Your task to perform on an android device: When is my next appointment? Image 0: 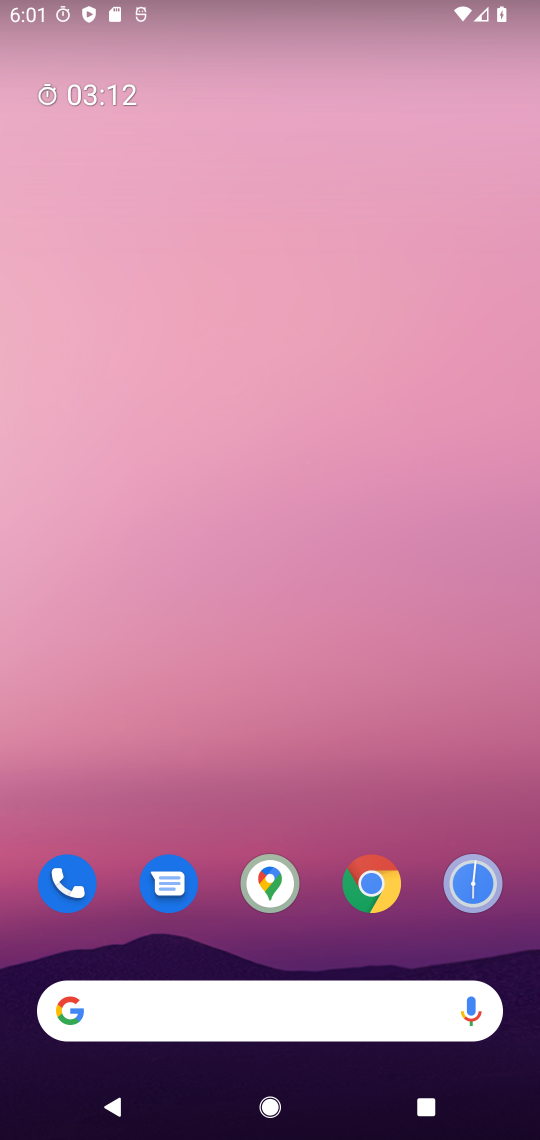
Step 0: drag from (274, 795) to (274, 208)
Your task to perform on an android device: When is my next appointment? Image 1: 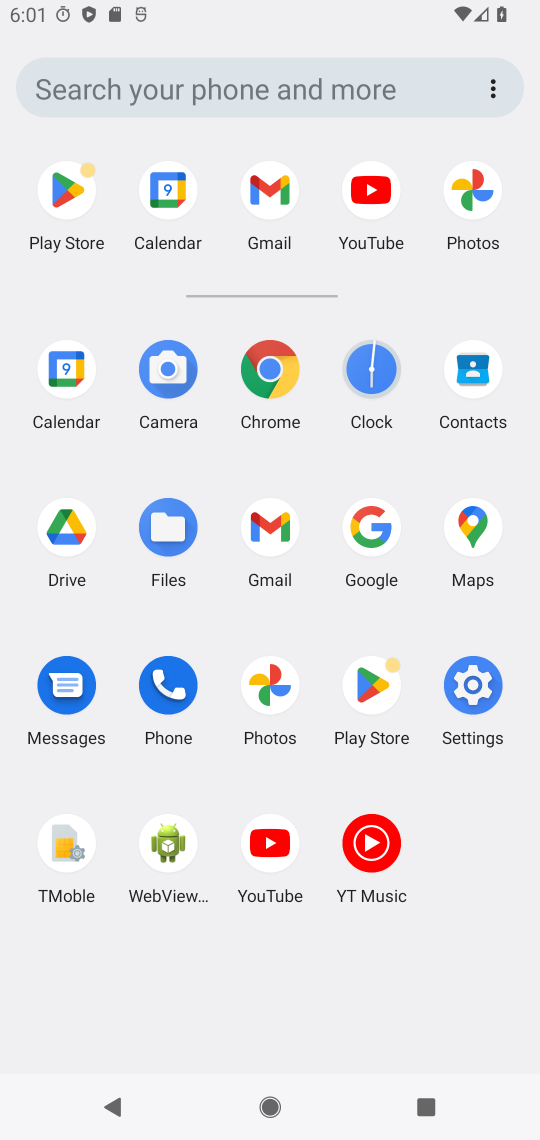
Step 1: click (56, 407)
Your task to perform on an android device: When is my next appointment? Image 2: 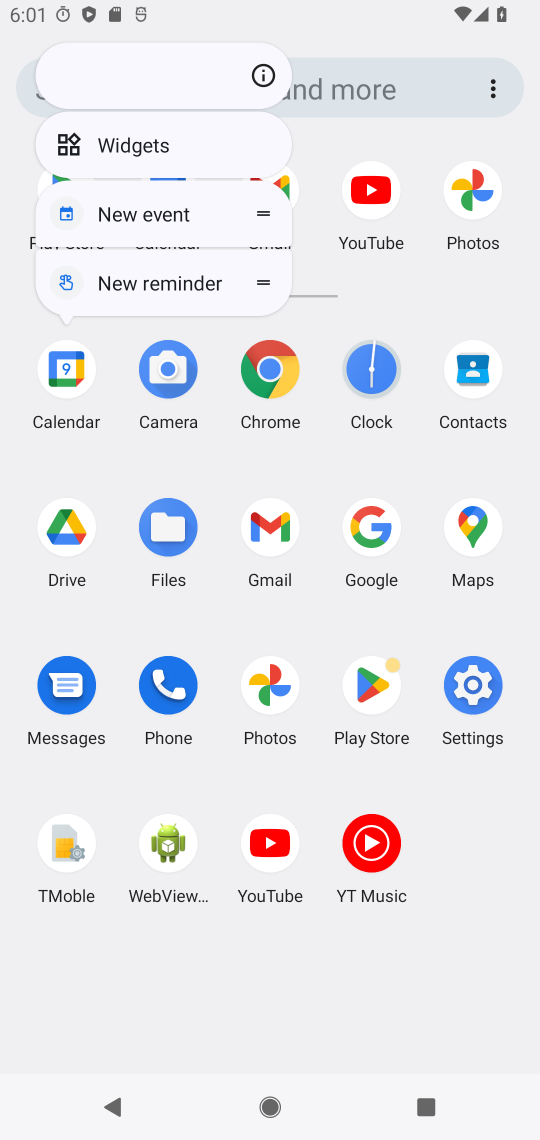
Step 2: click (56, 407)
Your task to perform on an android device: When is my next appointment? Image 3: 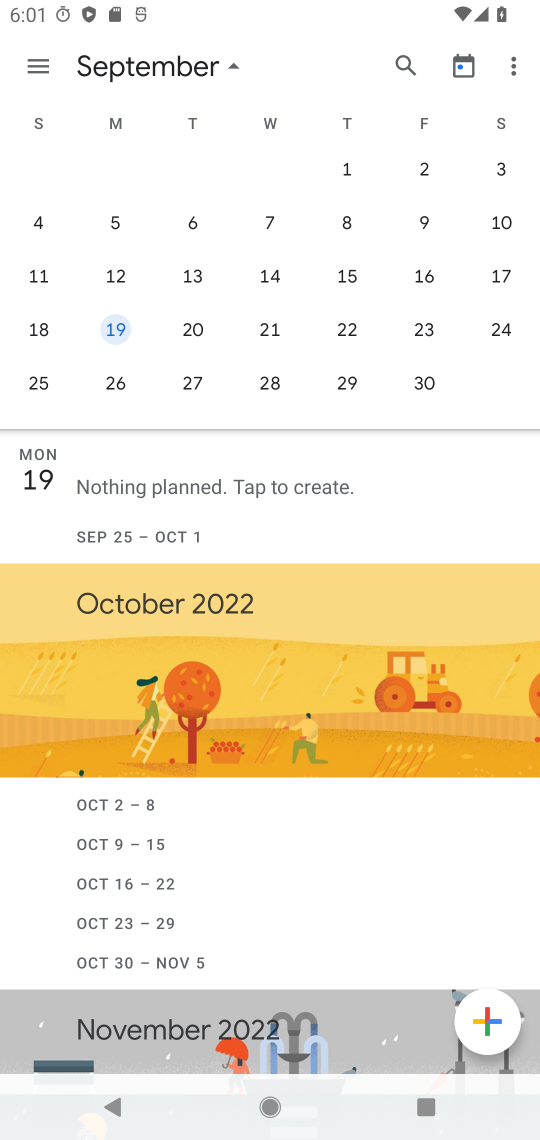
Step 3: drag from (435, 248) to (494, 248)
Your task to perform on an android device: When is my next appointment? Image 4: 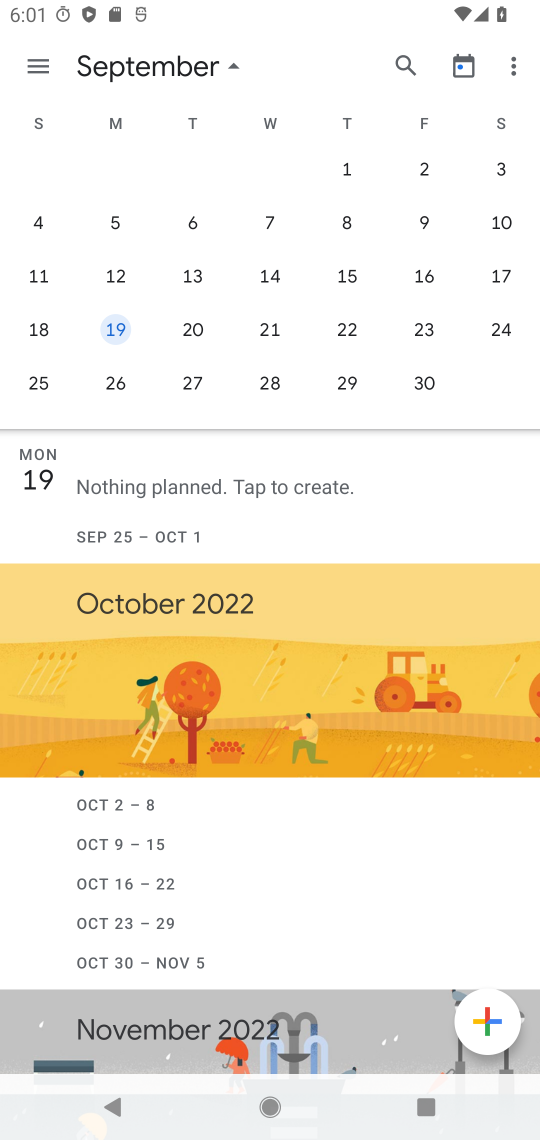
Step 4: drag from (107, 265) to (461, 230)
Your task to perform on an android device: When is my next appointment? Image 5: 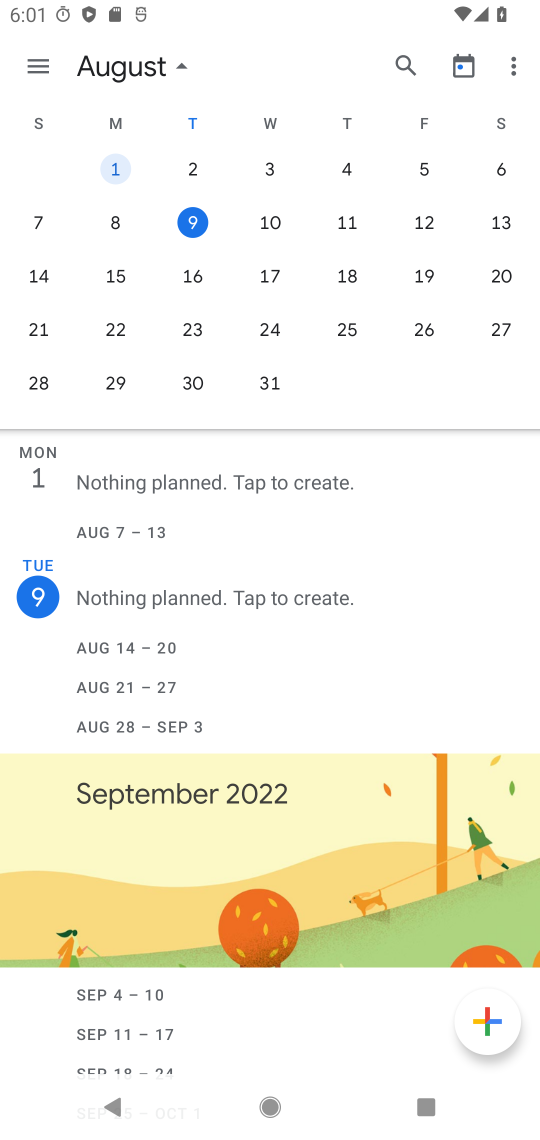
Step 5: click (46, 294)
Your task to perform on an android device: When is my next appointment? Image 6: 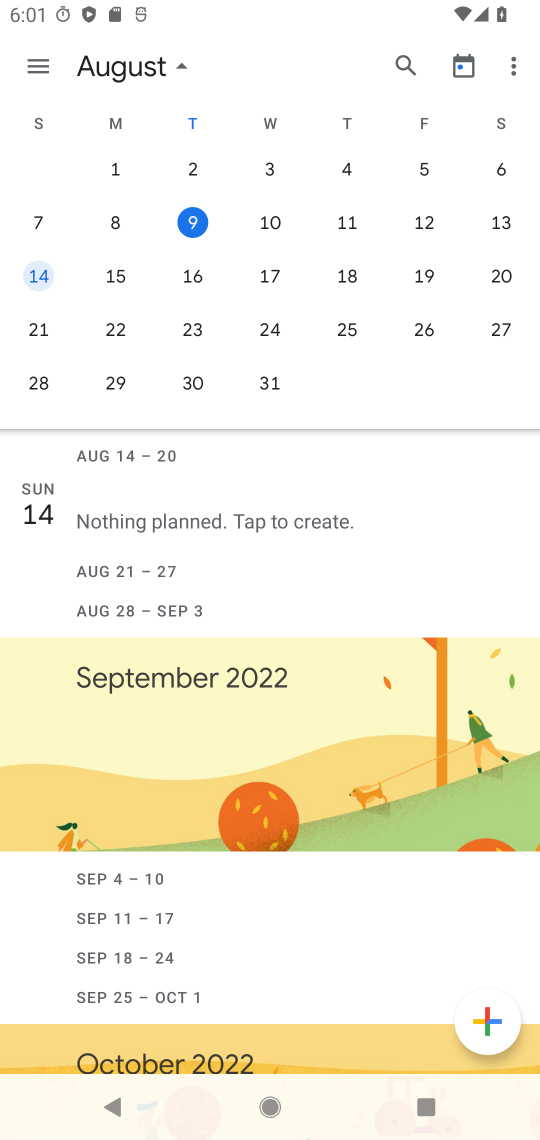
Step 6: click (108, 287)
Your task to perform on an android device: When is my next appointment? Image 7: 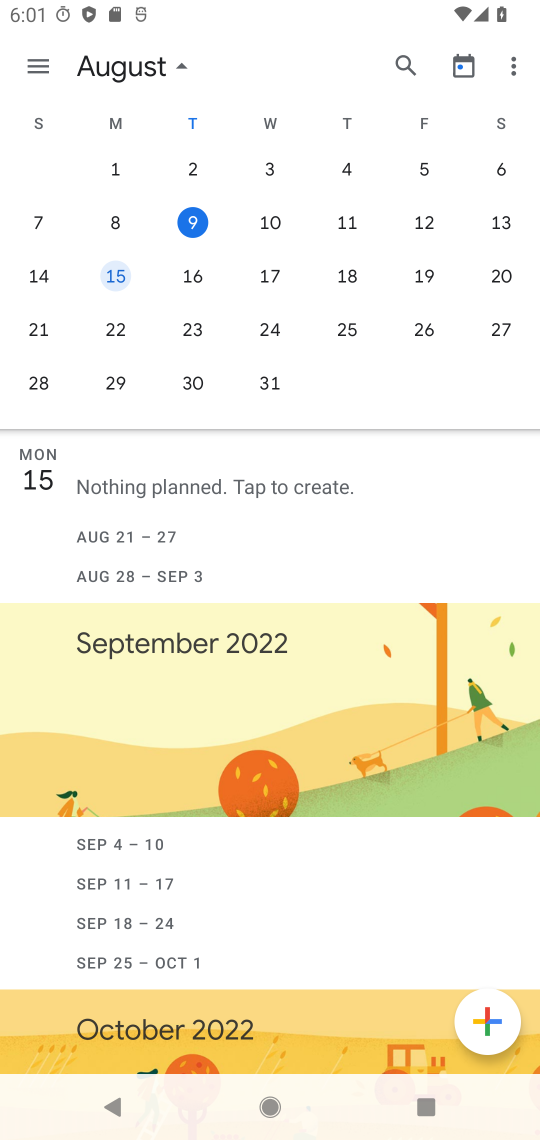
Step 7: click (373, 228)
Your task to perform on an android device: When is my next appointment? Image 8: 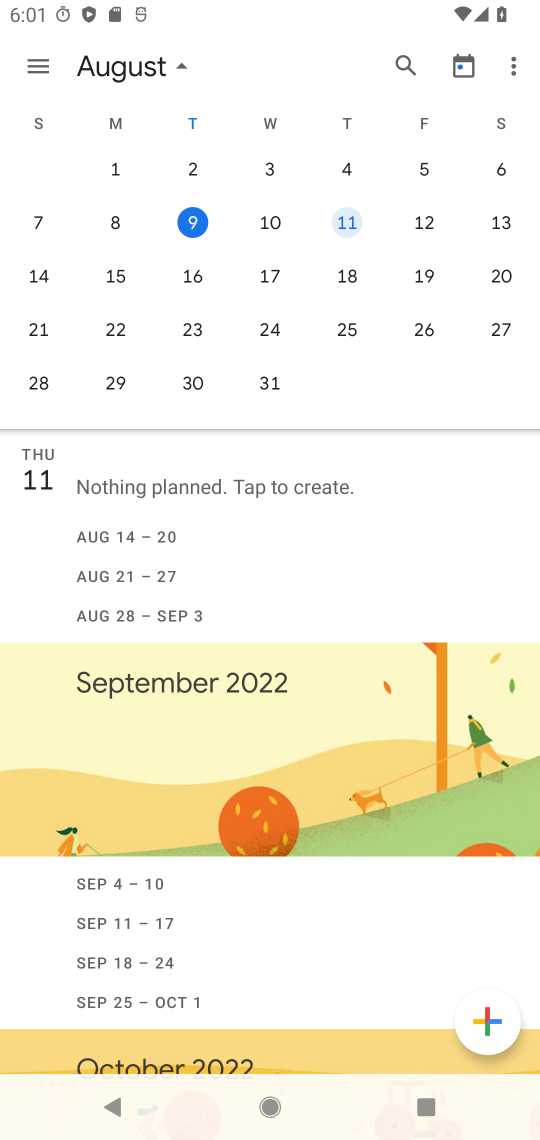
Step 8: click (434, 223)
Your task to perform on an android device: When is my next appointment? Image 9: 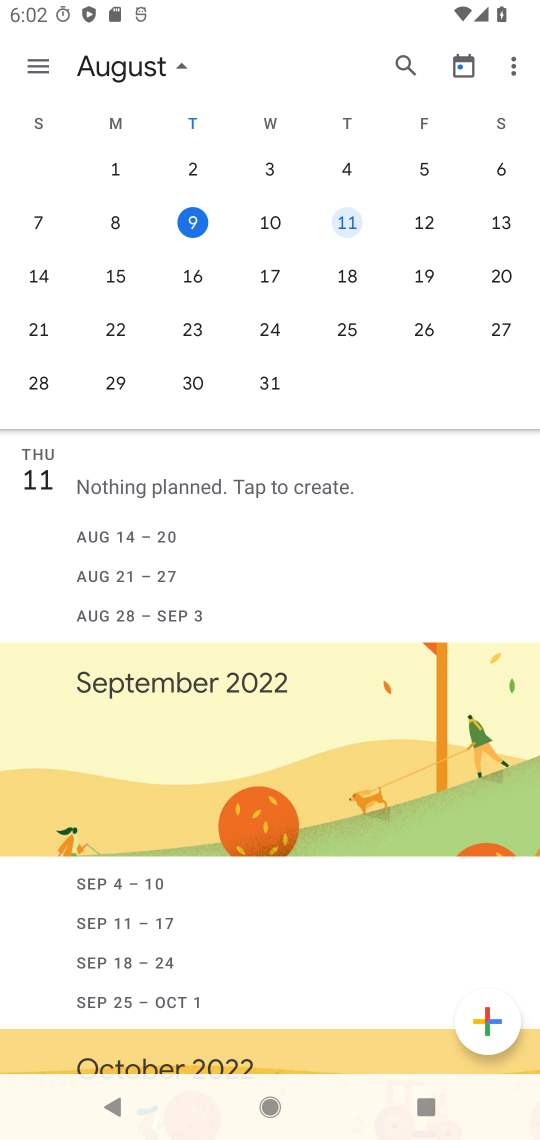
Step 9: click (492, 223)
Your task to perform on an android device: When is my next appointment? Image 10: 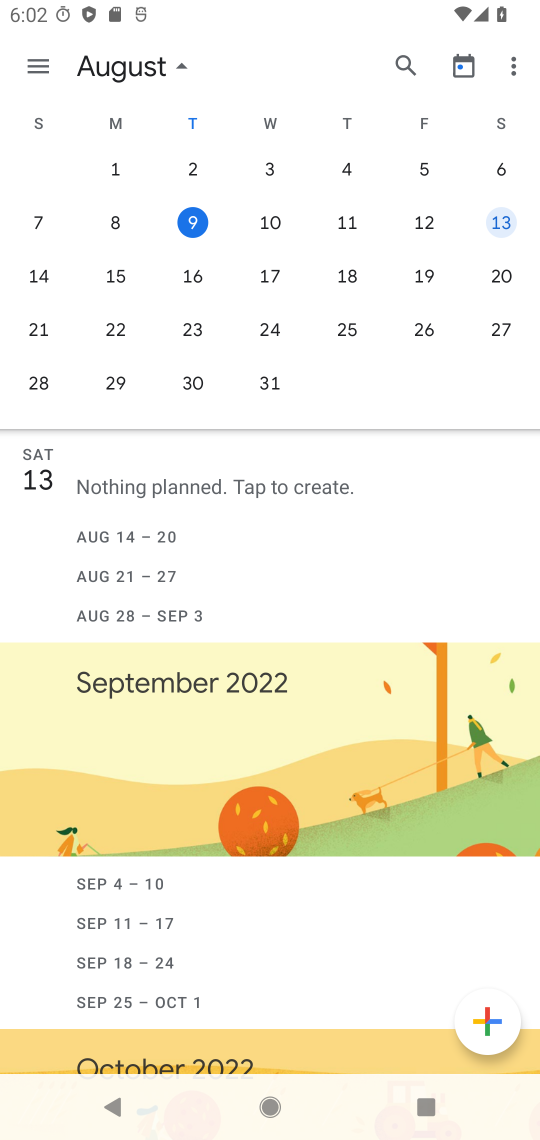
Step 10: task complete